Your task to perform on an android device: Open internet settings Image 0: 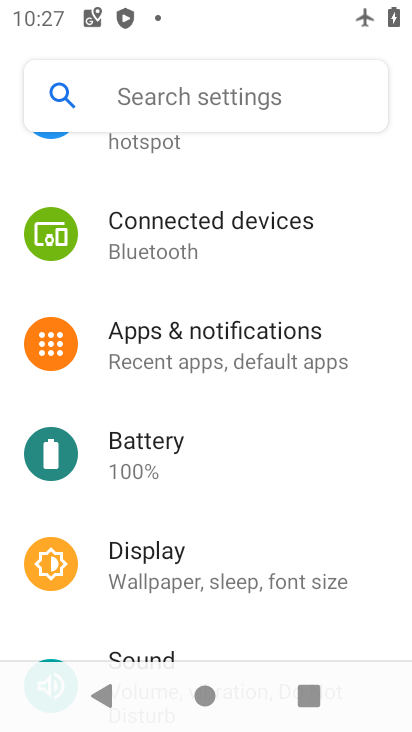
Step 0: drag from (276, 205) to (295, 598)
Your task to perform on an android device: Open internet settings Image 1: 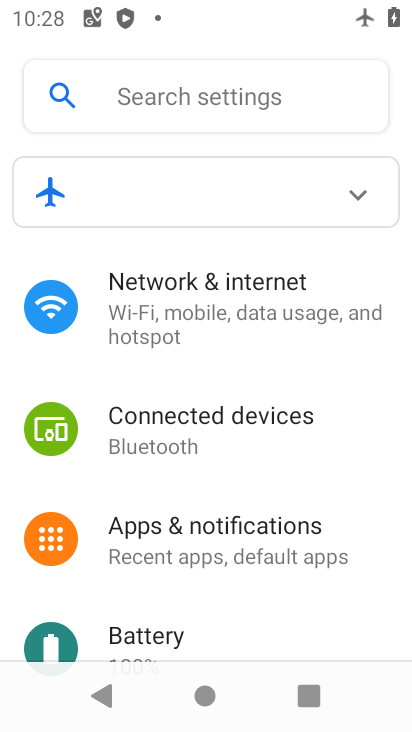
Step 1: click (141, 295)
Your task to perform on an android device: Open internet settings Image 2: 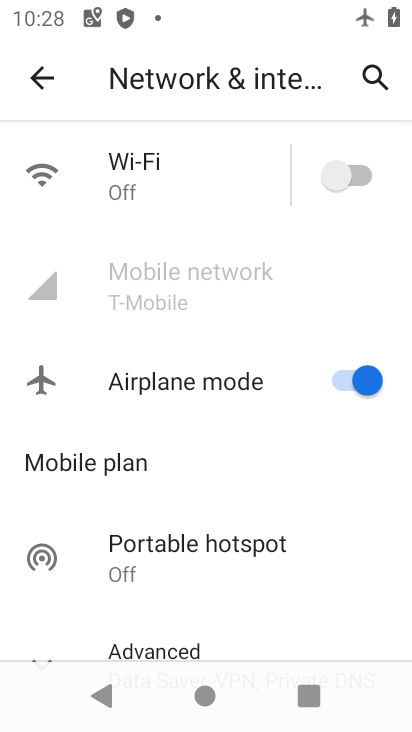
Step 2: click (339, 376)
Your task to perform on an android device: Open internet settings Image 3: 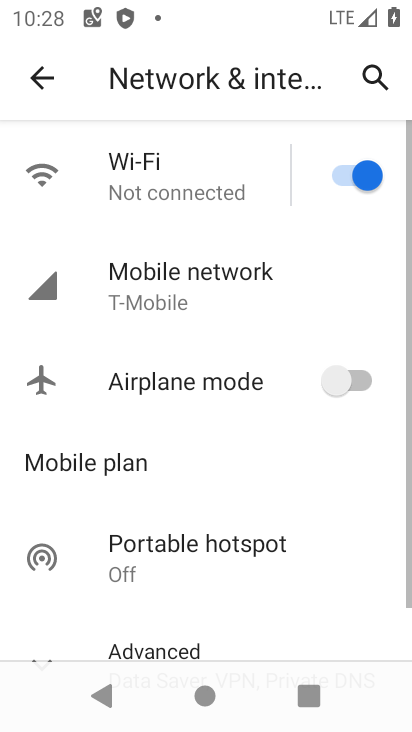
Step 3: click (132, 286)
Your task to perform on an android device: Open internet settings Image 4: 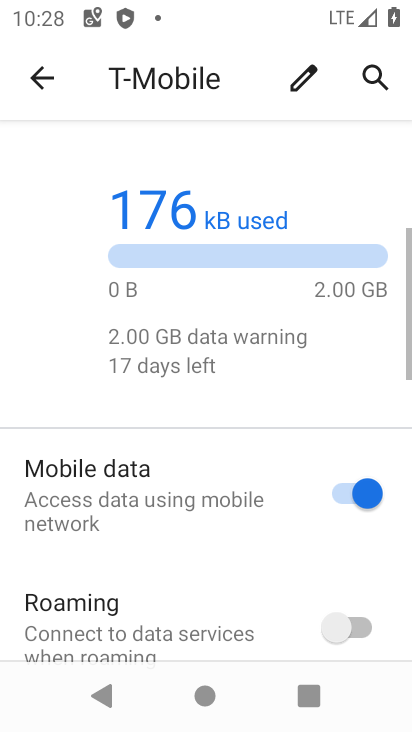
Step 4: task complete